Your task to perform on an android device: find photos in the google photos app Image 0: 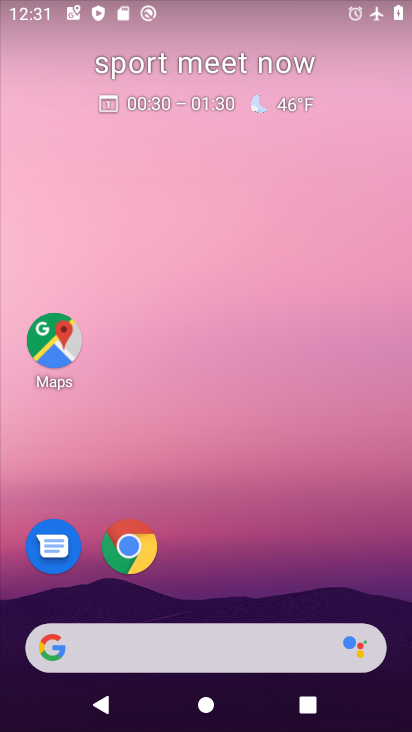
Step 0: drag from (307, 553) to (359, 15)
Your task to perform on an android device: find photos in the google photos app Image 1: 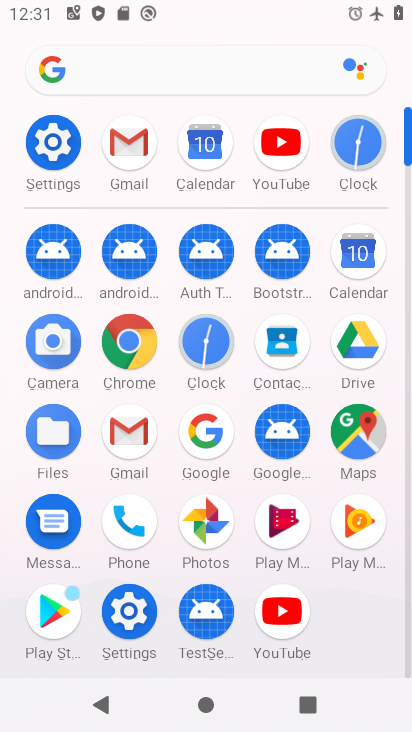
Step 1: click (208, 522)
Your task to perform on an android device: find photos in the google photos app Image 2: 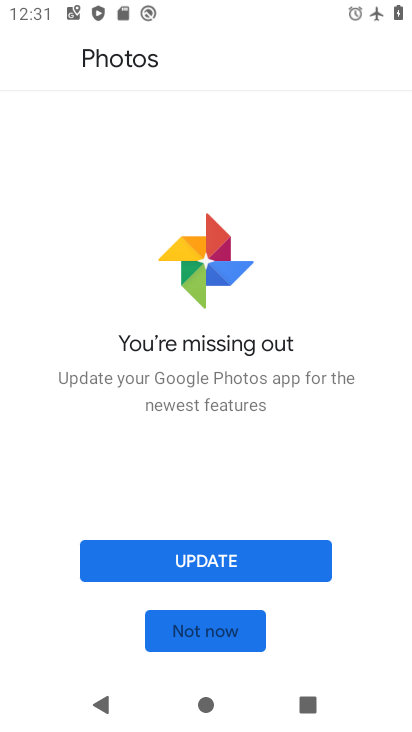
Step 2: click (207, 634)
Your task to perform on an android device: find photos in the google photos app Image 3: 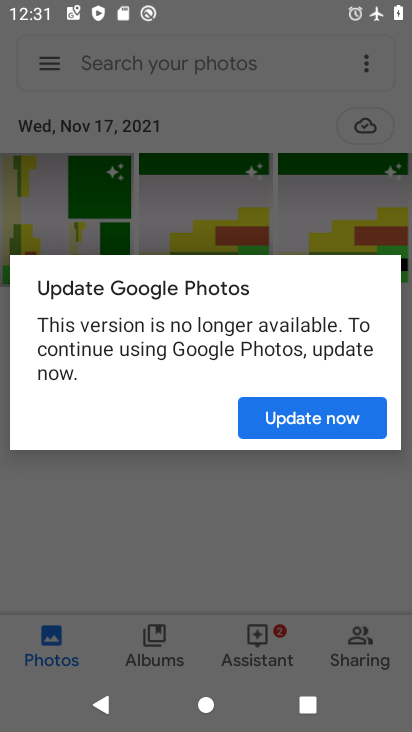
Step 3: click (298, 424)
Your task to perform on an android device: find photos in the google photos app Image 4: 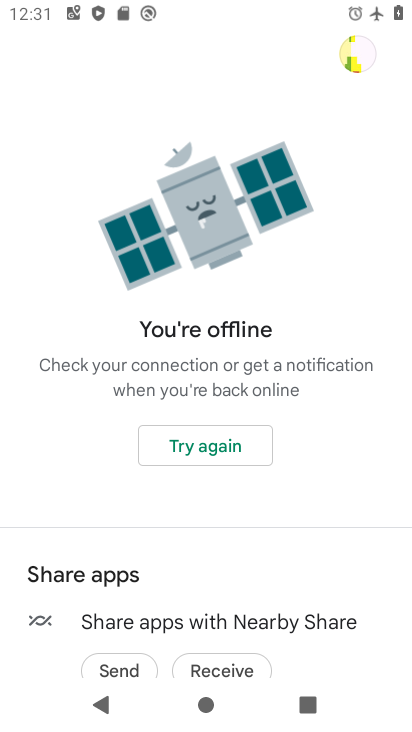
Step 4: press back button
Your task to perform on an android device: find photos in the google photos app Image 5: 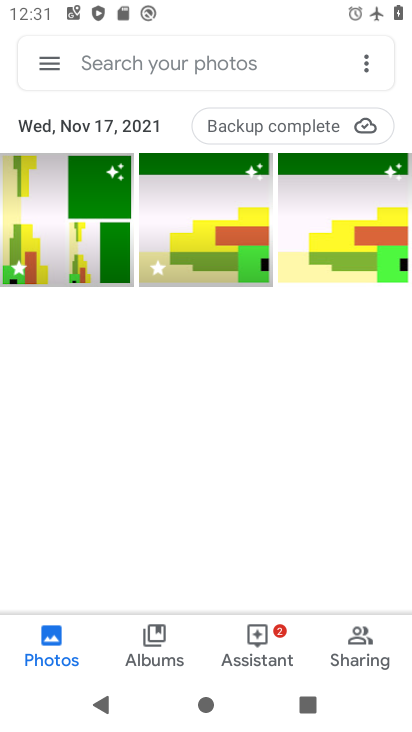
Step 5: click (49, 646)
Your task to perform on an android device: find photos in the google photos app Image 6: 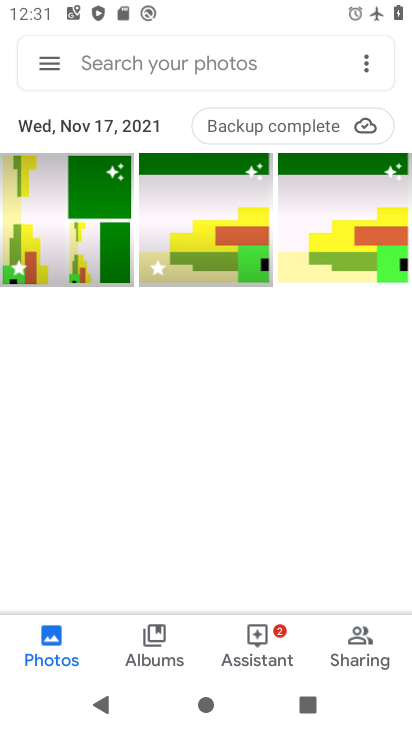
Step 6: task complete